Your task to perform on an android device: uninstall "Google Photos" Image 0: 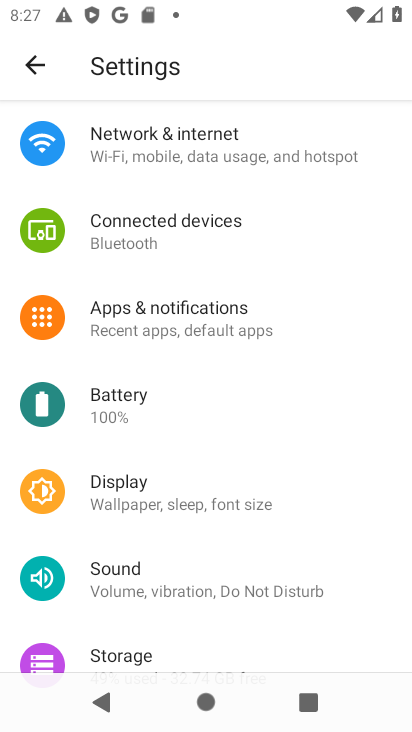
Step 0: task complete